Your task to perform on an android device: turn on notifications settings in the gmail app Image 0: 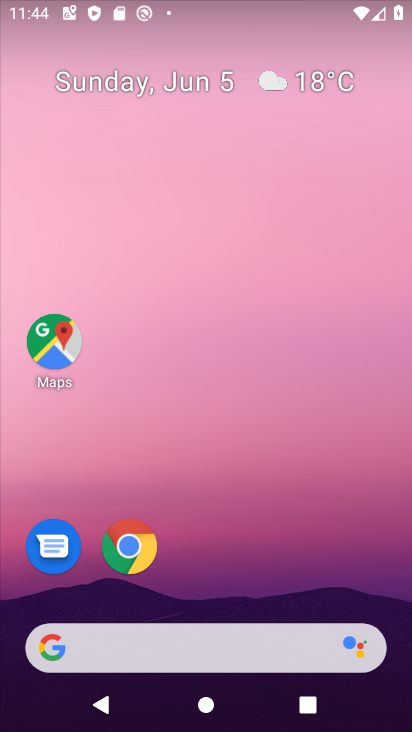
Step 0: drag from (274, 575) to (216, 150)
Your task to perform on an android device: turn on notifications settings in the gmail app Image 1: 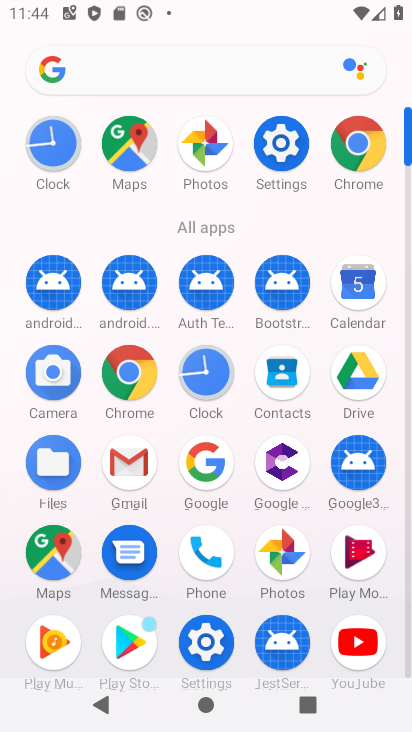
Step 1: click (134, 453)
Your task to perform on an android device: turn on notifications settings in the gmail app Image 2: 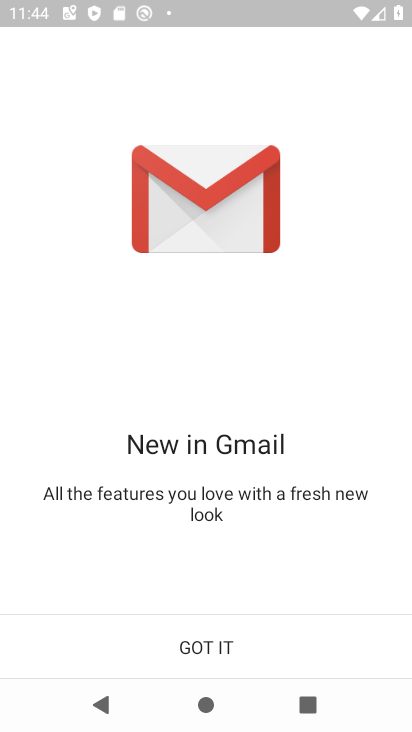
Step 2: click (213, 655)
Your task to perform on an android device: turn on notifications settings in the gmail app Image 3: 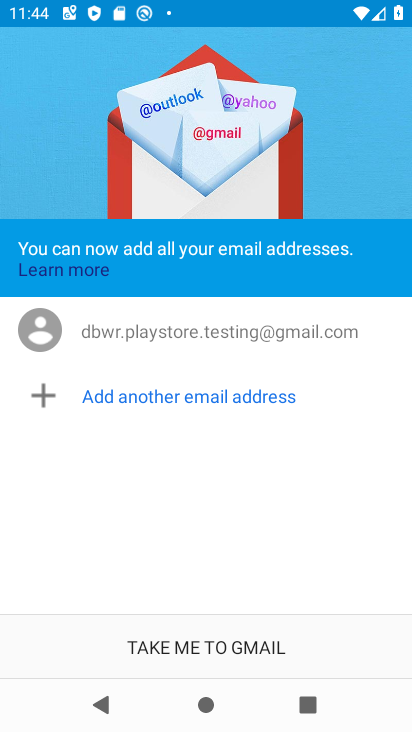
Step 3: click (218, 631)
Your task to perform on an android device: turn on notifications settings in the gmail app Image 4: 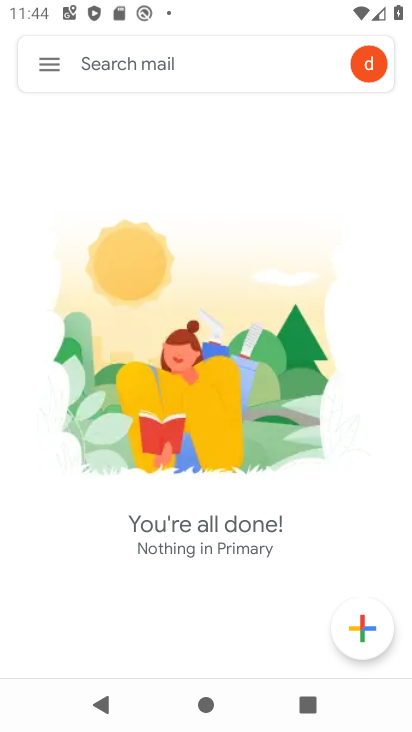
Step 4: click (48, 67)
Your task to perform on an android device: turn on notifications settings in the gmail app Image 5: 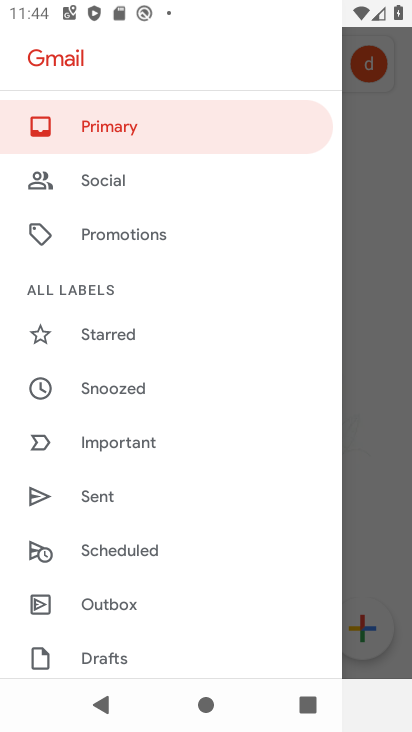
Step 5: drag from (234, 649) to (262, 134)
Your task to perform on an android device: turn on notifications settings in the gmail app Image 6: 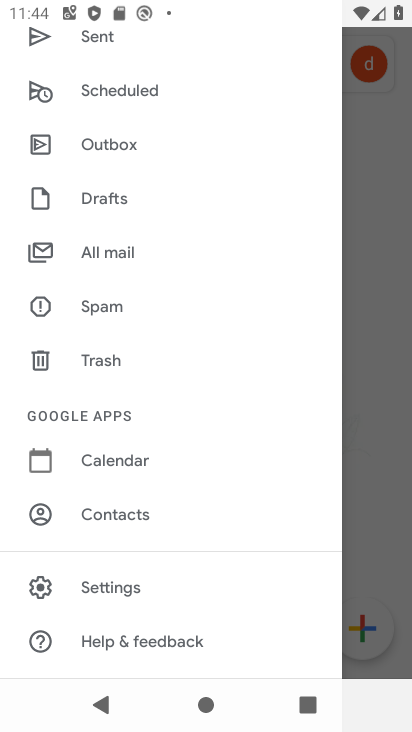
Step 6: drag from (234, 587) to (245, 180)
Your task to perform on an android device: turn on notifications settings in the gmail app Image 7: 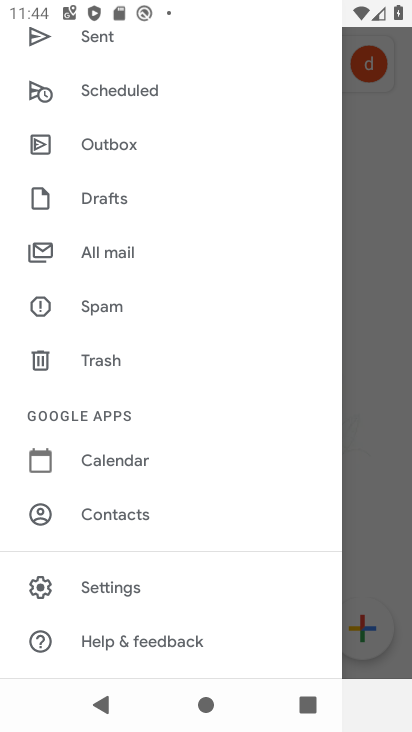
Step 7: click (86, 593)
Your task to perform on an android device: turn on notifications settings in the gmail app Image 8: 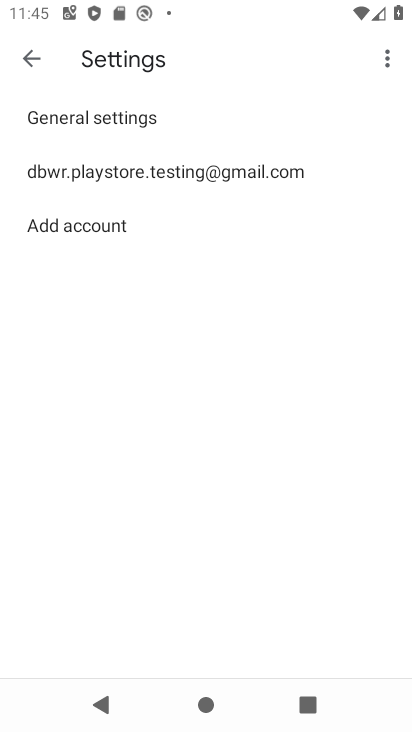
Step 8: click (136, 169)
Your task to perform on an android device: turn on notifications settings in the gmail app Image 9: 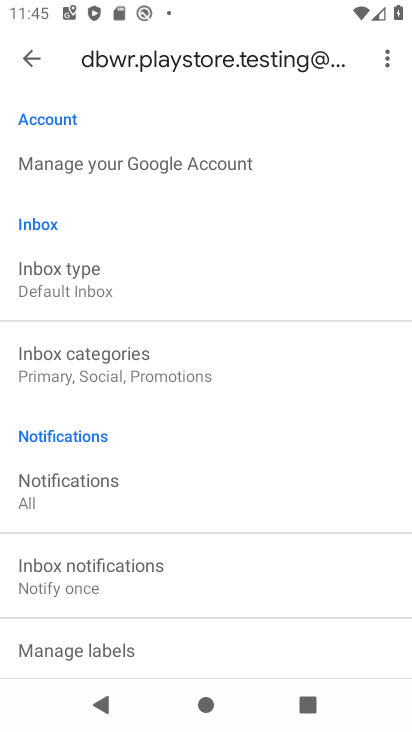
Step 9: click (92, 569)
Your task to perform on an android device: turn on notifications settings in the gmail app Image 10: 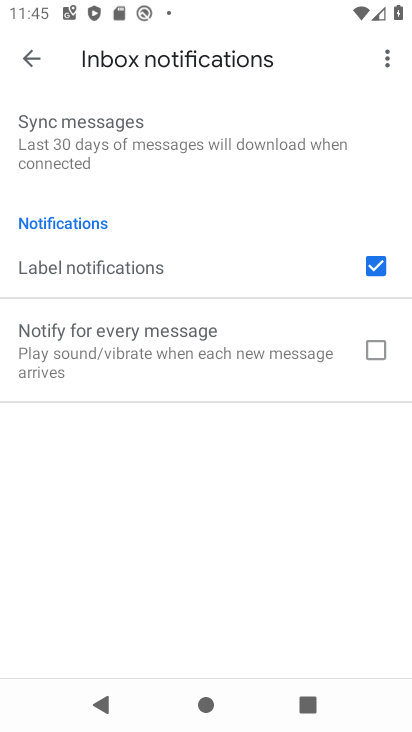
Step 10: click (30, 42)
Your task to perform on an android device: turn on notifications settings in the gmail app Image 11: 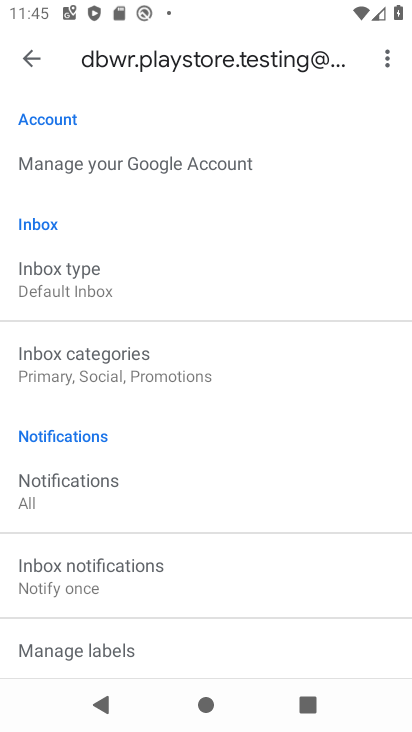
Step 11: drag from (281, 399) to (291, 316)
Your task to perform on an android device: turn on notifications settings in the gmail app Image 12: 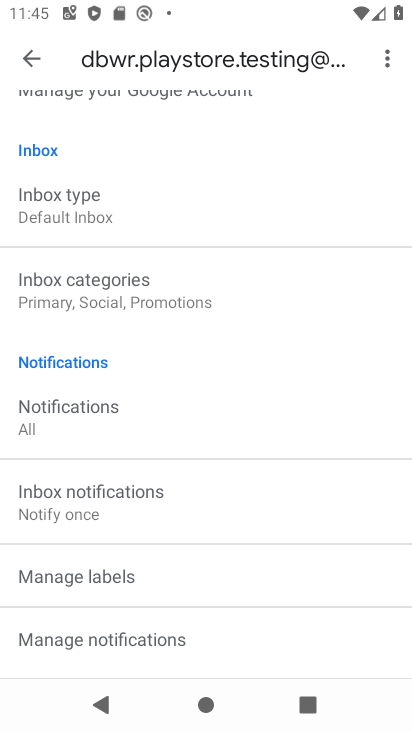
Step 12: click (123, 644)
Your task to perform on an android device: turn on notifications settings in the gmail app Image 13: 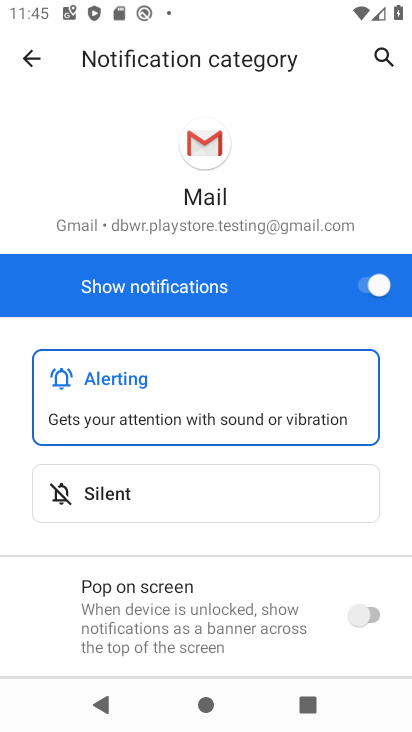
Step 13: task complete